Your task to perform on an android device: Open the phone app and click the voicemail tab. Image 0: 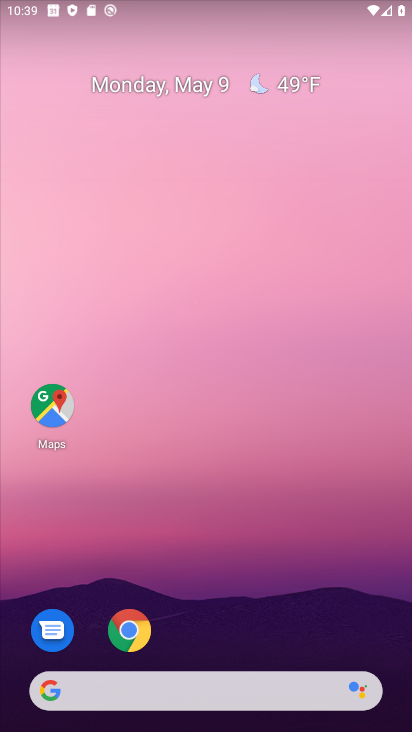
Step 0: drag from (230, 623) to (261, 125)
Your task to perform on an android device: Open the phone app and click the voicemail tab. Image 1: 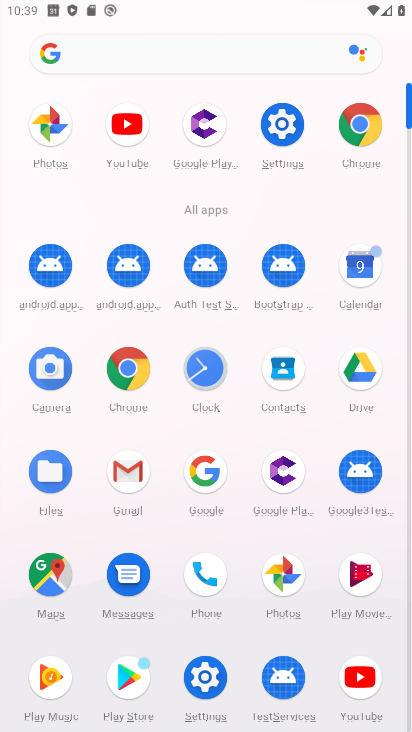
Step 1: drag from (164, 623) to (221, 347)
Your task to perform on an android device: Open the phone app and click the voicemail tab. Image 2: 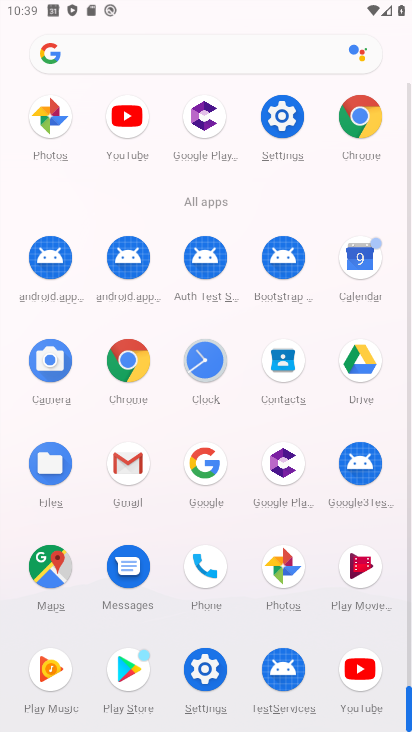
Step 2: click (211, 566)
Your task to perform on an android device: Open the phone app and click the voicemail tab. Image 3: 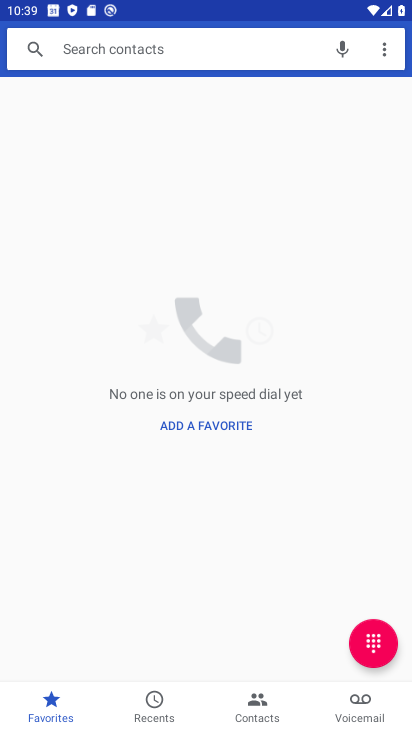
Step 3: click (352, 699)
Your task to perform on an android device: Open the phone app and click the voicemail tab. Image 4: 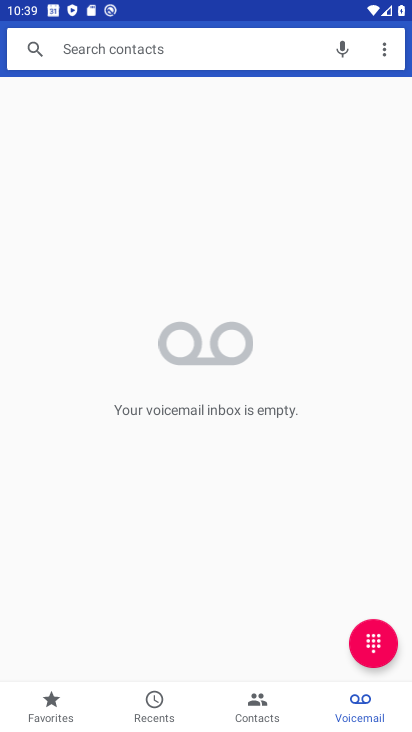
Step 4: click (360, 699)
Your task to perform on an android device: Open the phone app and click the voicemail tab. Image 5: 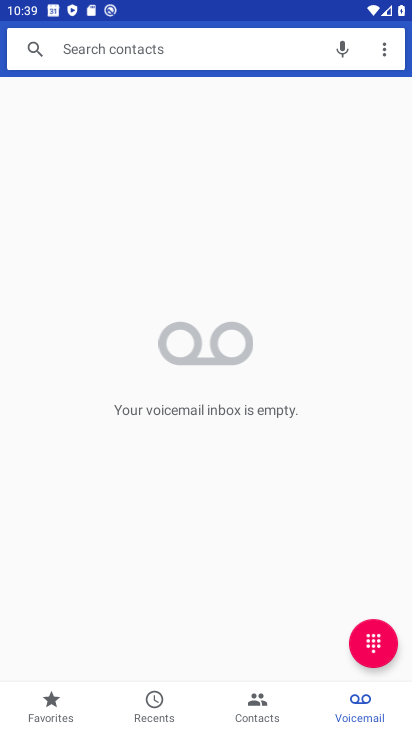
Step 5: task complete